Your task to perform on an android device: open app "Indeed Job Search" (install if not already installed) and enter user name: "quixotic@inbox.com" and password: "microphones" Image 0: 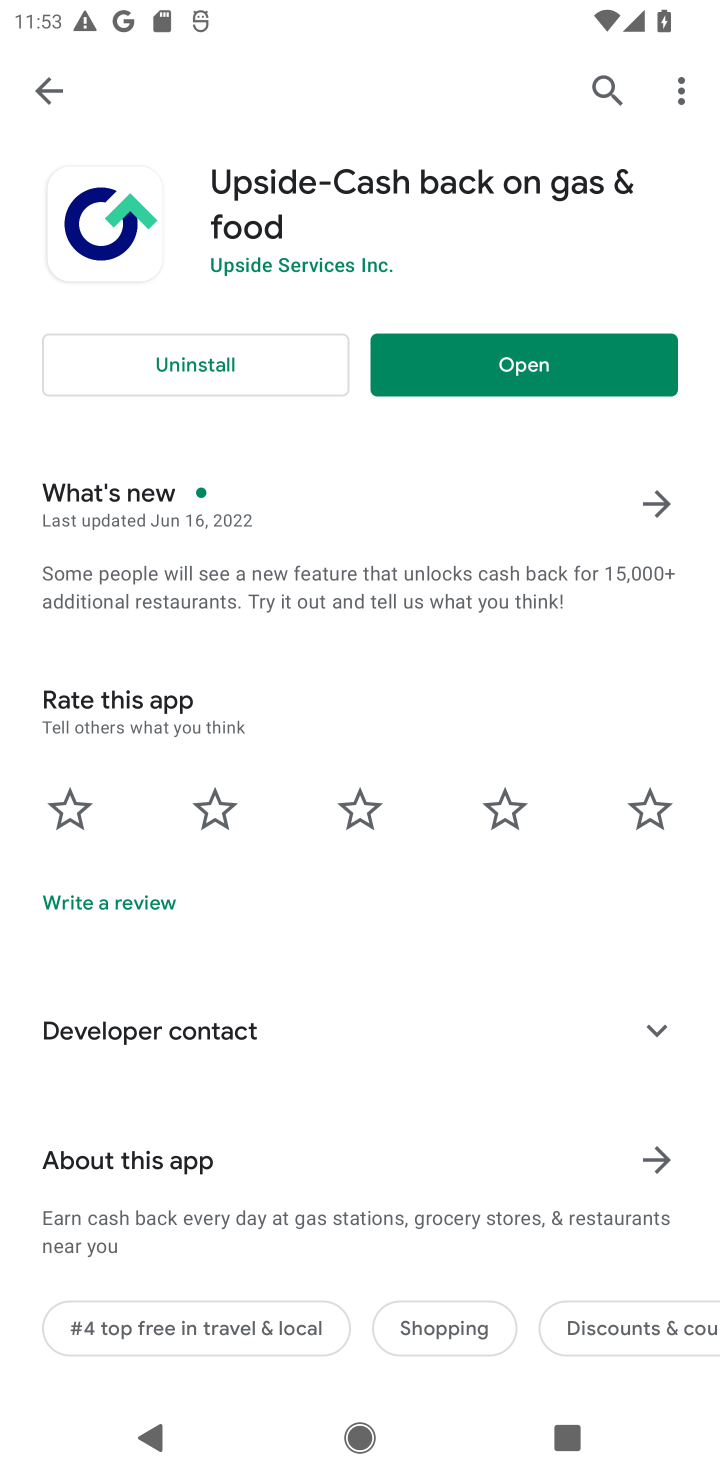
Step 0: click (606, 92)
Your task to perform on an android device: open app "Indeed Job Search" (install if not already installed) and enter user name: "quixotic@inbox.com" and password: "microphones" Image 1: 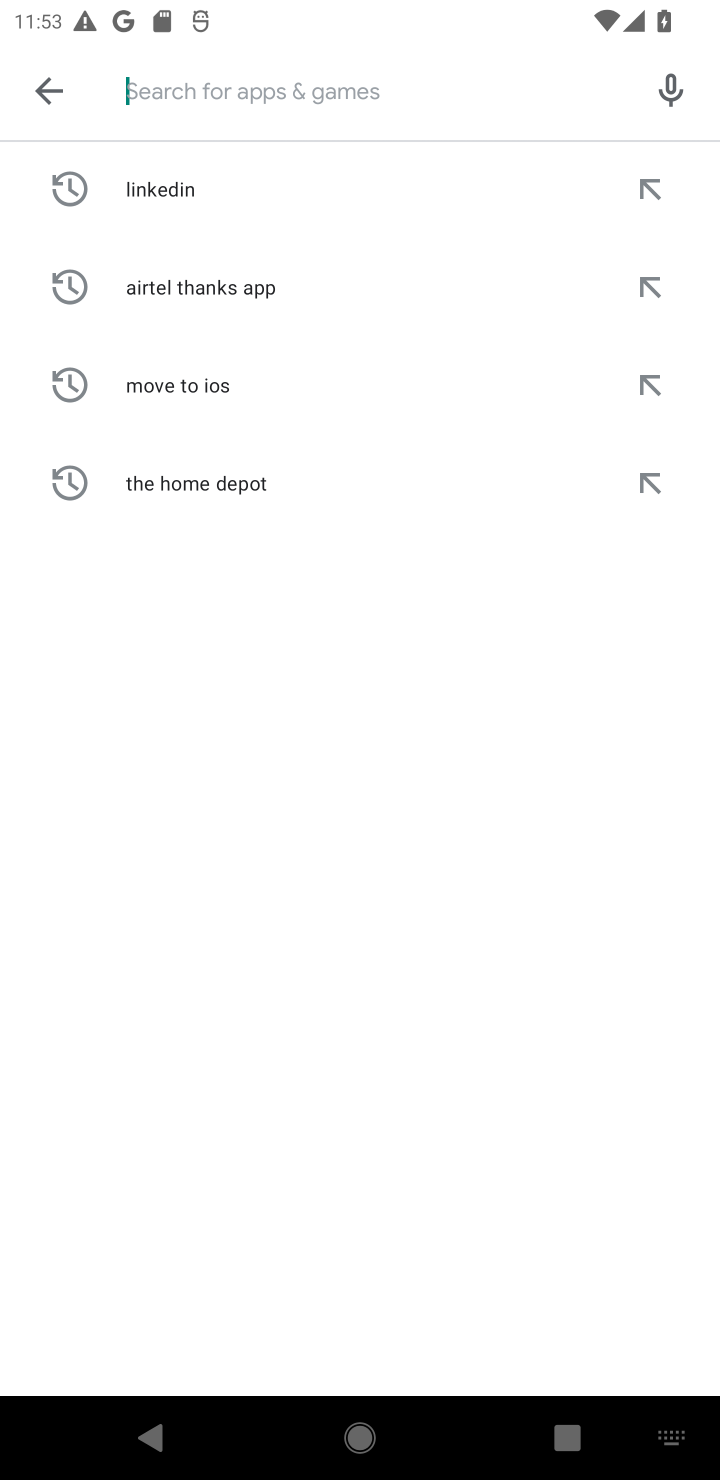
Step 1: type "Indeed Job Search"
Your task to perform on an android device: open app "Indeed Job Search" (install if not already installed) and enter user name: "quixotic@inbox.com" and password: "microphones" Image 2: 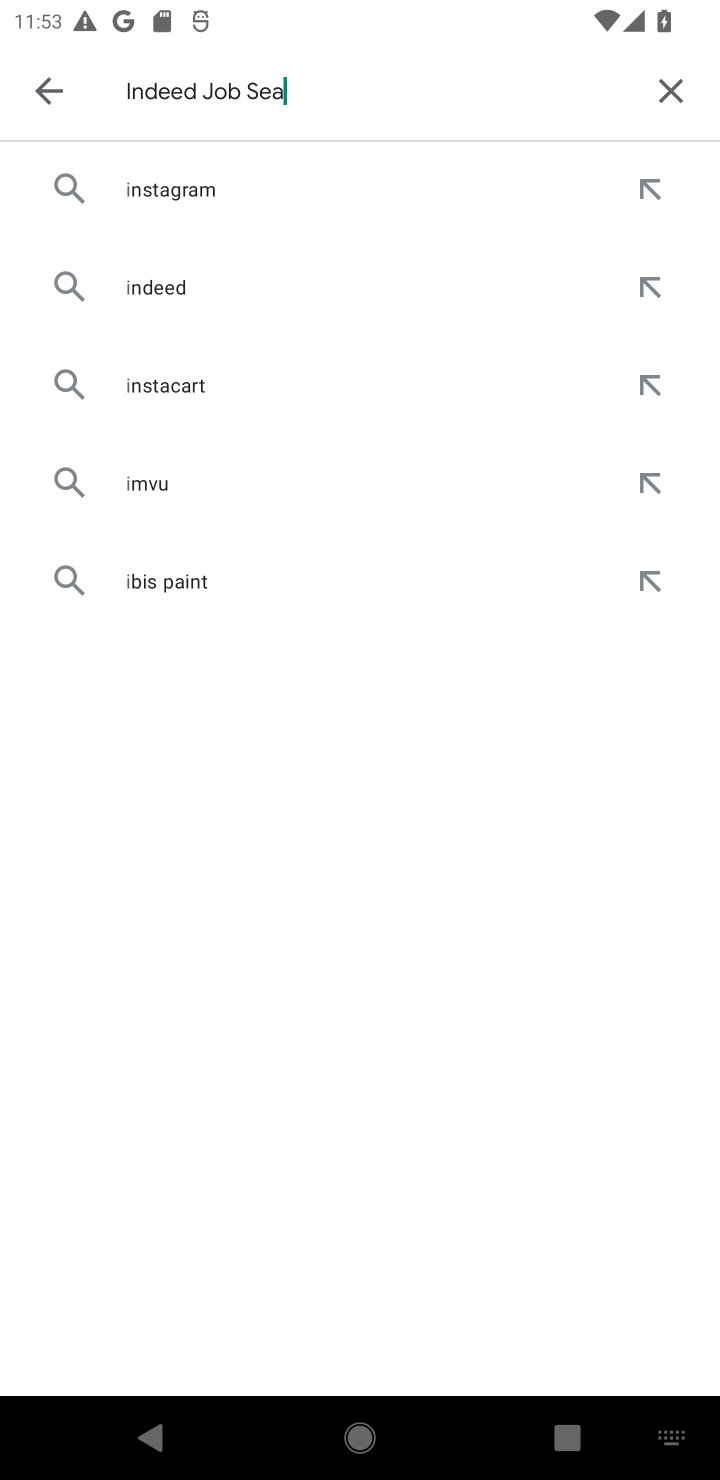
Step 2: type ""
Your task to perform on an android device: open app "Indeed Job Search" (install if not already installed) and enter user name: "quixotic@inbox.com" and password: "microphones" Image 3: 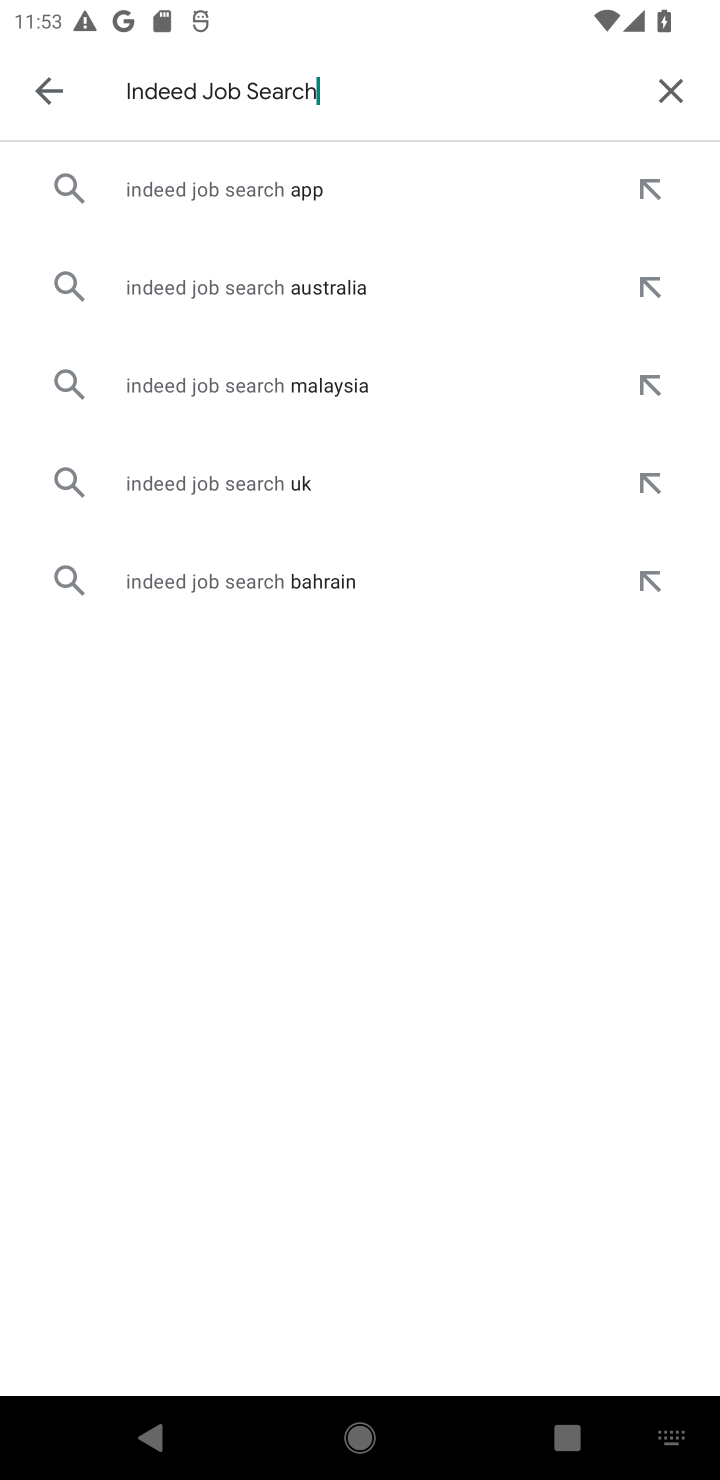
Step 3: click (254, 185)
Your task to perform on an android device: open app "Indeed Job Search" (install if not already installed) and enter user name: "quixotic@inbox.com" and password: "microphones" Image 4: 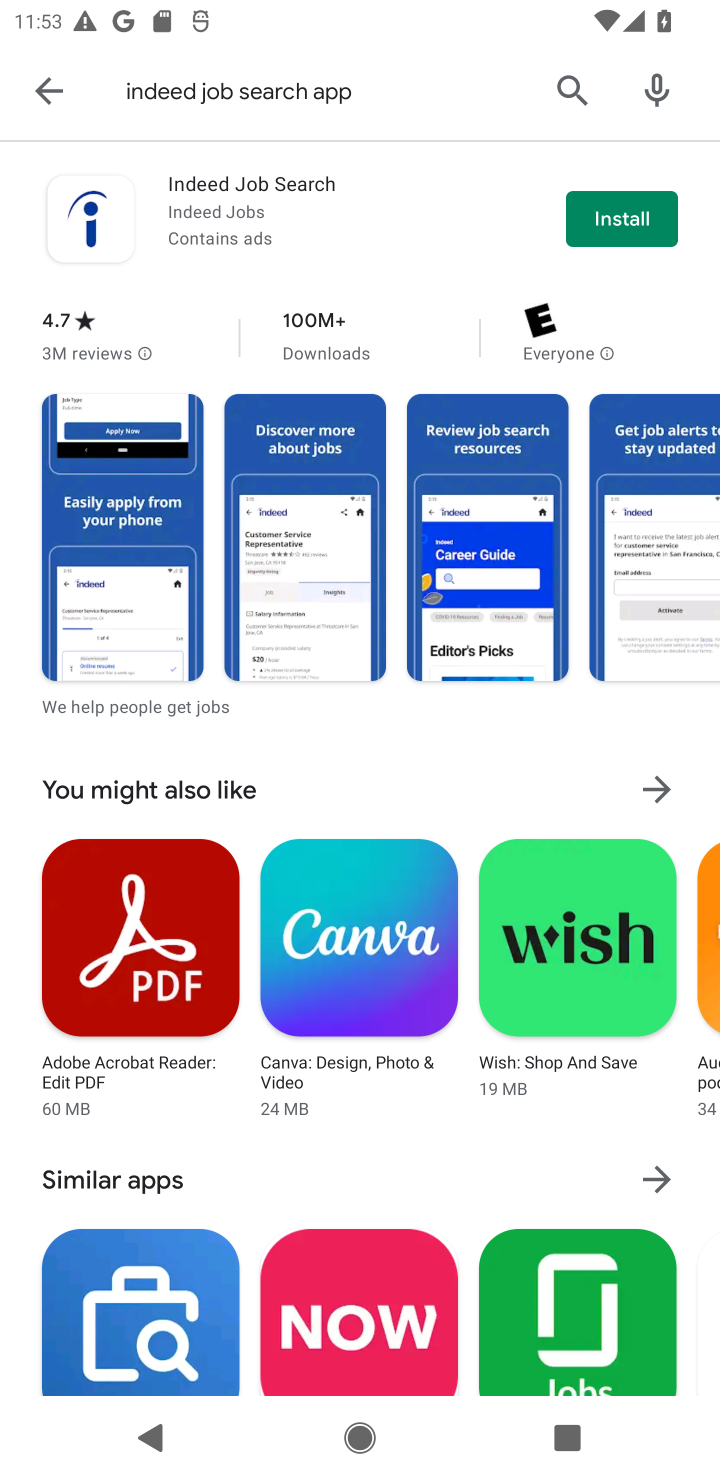
Step 4: click (609, 214)
Your task to perform on an android device: open app "Indeed Job Search" (install if not already installed) and enter user name: "quixotic@inbox.com" and password: "microphones" Image 5: 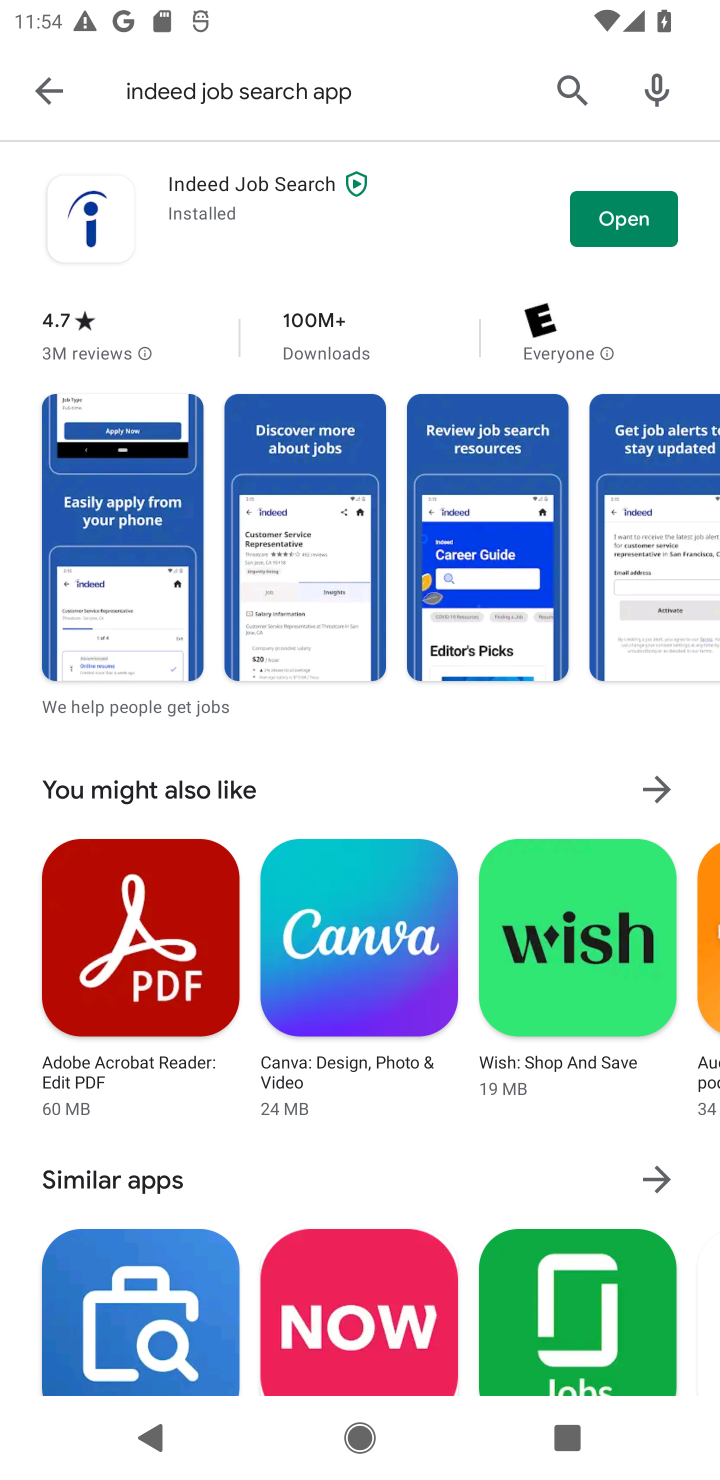
Step 5: click (611, 226)
Your task to perform on an android device: open app "Indeed Job Search" (install if not already installed) and enter user name: "quixotic@inbox.com" and password: "microphones" Image 6: 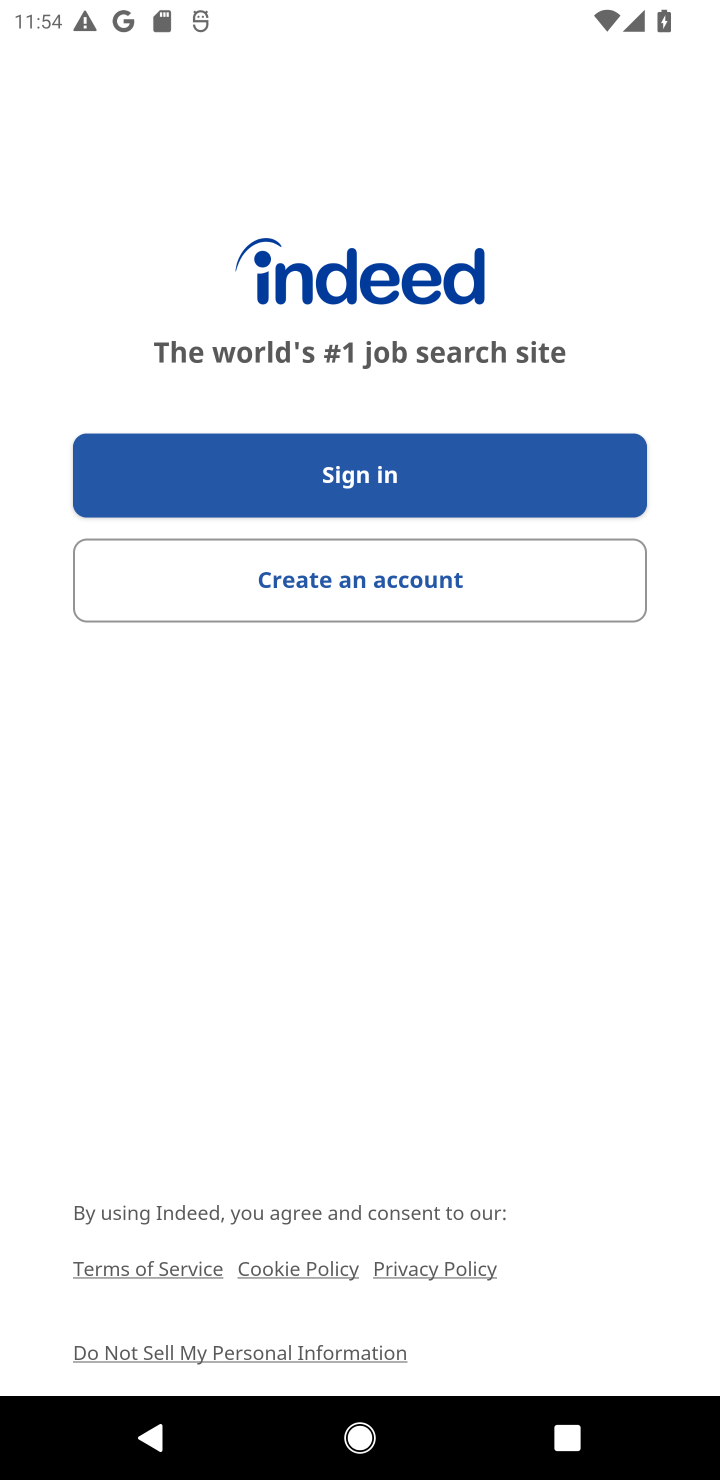
Step 6: task complete